Your task to perform on an android device: Go to wifi settings Image 0: 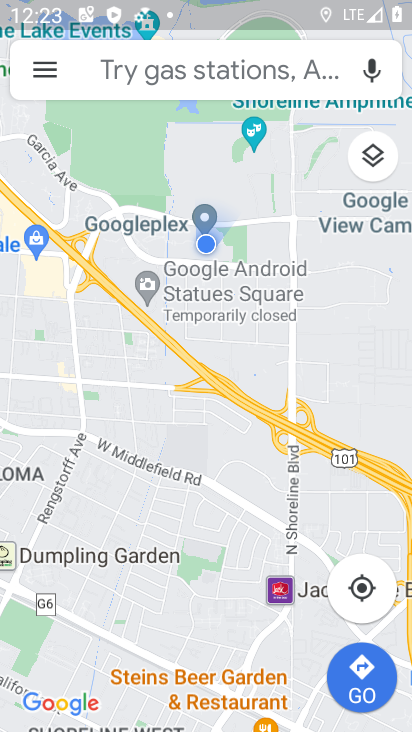
Step 0: press back button
Your task to perform on an android device: Go to wifi settings Image 1: 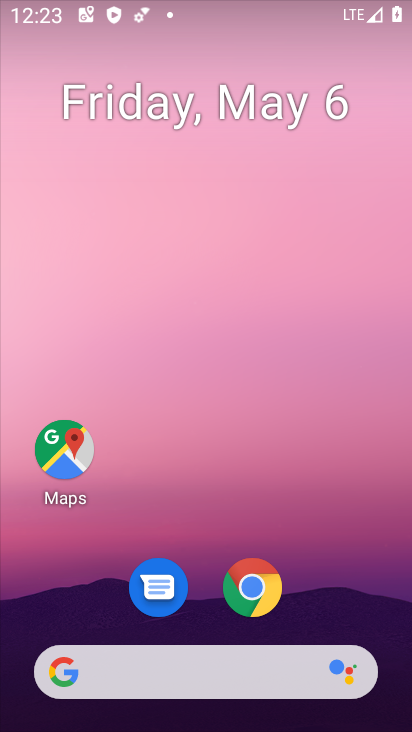
Step 1: drag from (77, 9) to (147, 646)
Your task to perform on an android device: Go to wifi settings Image 2: 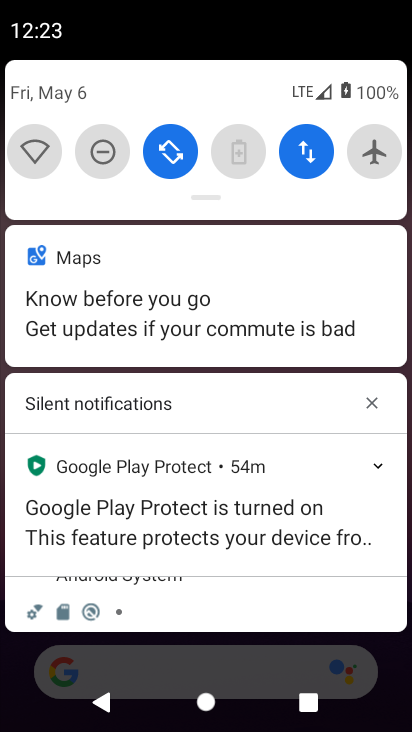
Step 2: click (40, 149)
Your task to perform on an android device: Go to wifi settings Image 3: 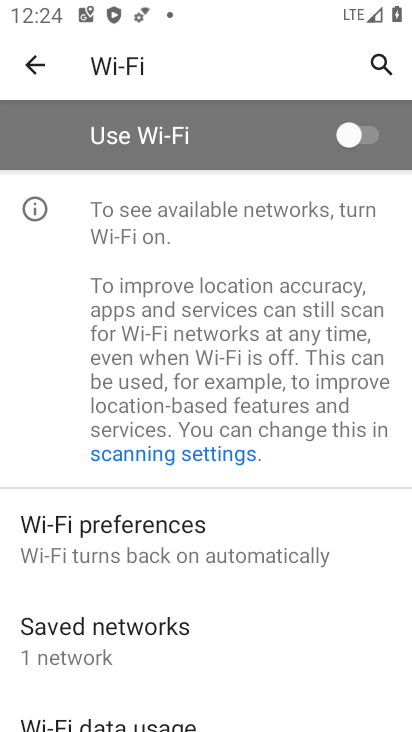
Step 3: task complete